Your task to perform on an android device: Go to calendar. Show me events next week Image 0: 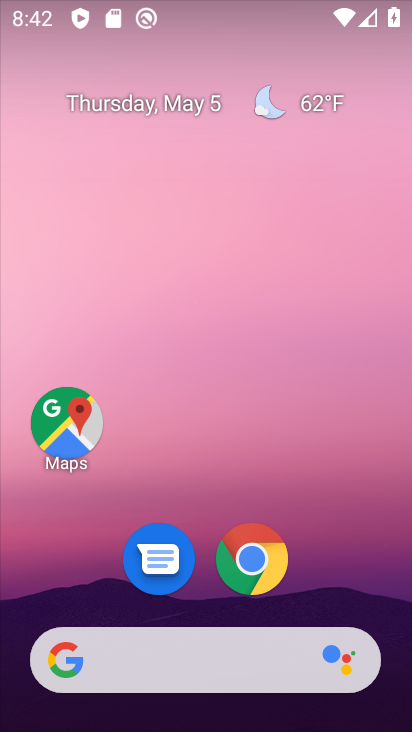
Step 0: drag from (240, 465) to (326, 2)
Your task to perform on an android device: Go to calendar. Show me events next week Image 1: 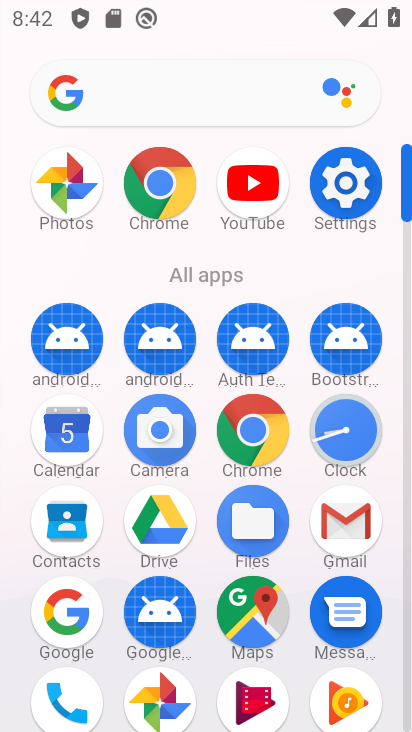
Step 1: click (69, 431)
Your task to perform on an android device: Go to calendar. Show me events next week Image 2: 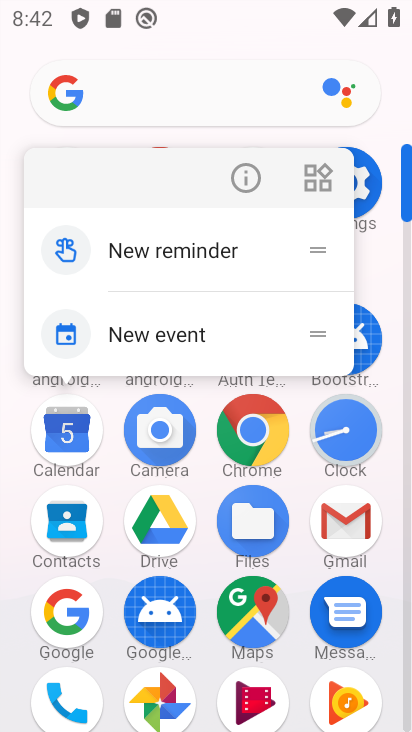
Step 2: click (44, 433)
Your task to perform on an android device: Go to calendar. Show me events next week Image 3: 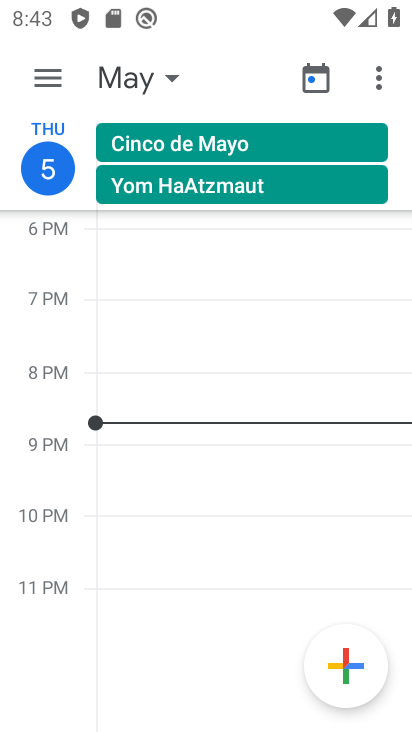
Step 3: click (153, 76)
Your task to perform on an android device: Go to calendar. Show me events next week Image 4: 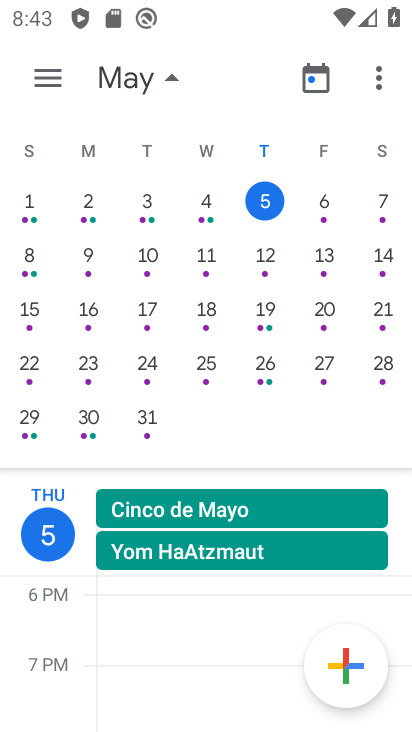
Step 4: click (102, 251)
Your task to perform on an android device: Go to calendar. Show me events next week Image 5: 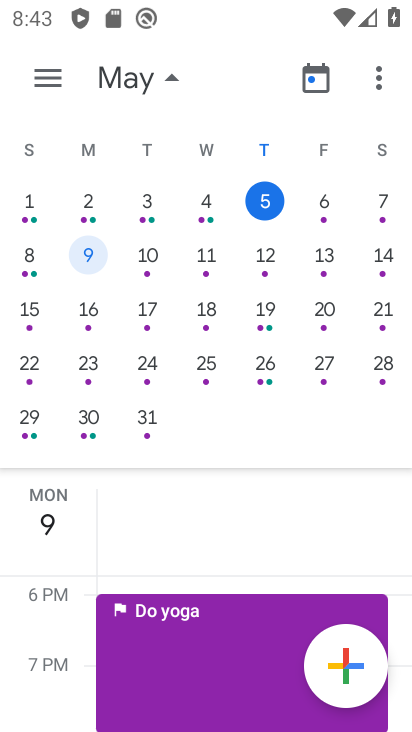
Step 5: drag from (152, 644) to (264, 167)
Your task to perform on an android device: Go to calendar. Show me events next week Image 6: 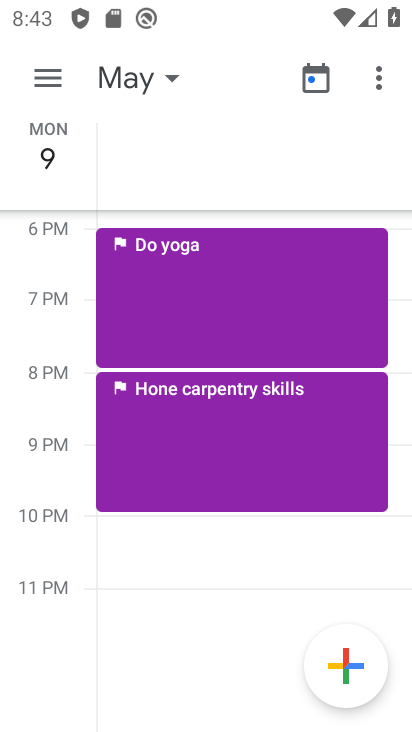
Step 6: click (54, 73)
Your task to perform on an android device: Go to calendar. Show me events next week Image 7: 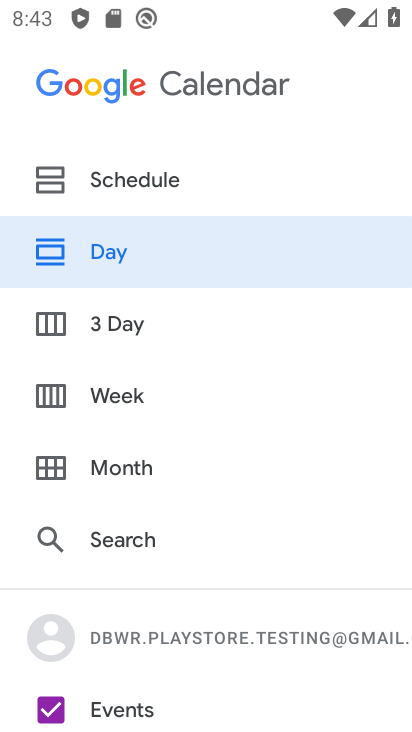
Step 7: click (117, 185)
Your task to perform on an android device: Go to calendar. Show me events next week Image 8: 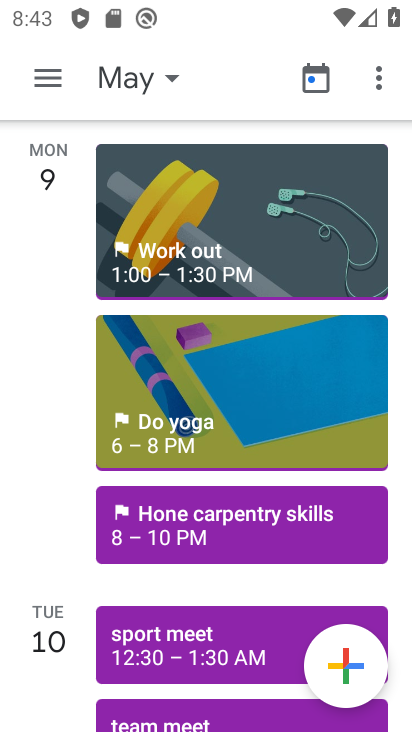
Step 8: click (171, 643)
Your task to perform on an android device: Go to calendar. Show me events next week Image 9: 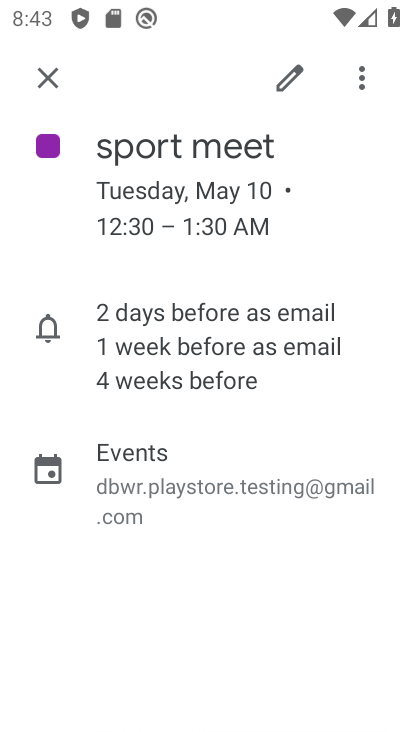
Step 9: task complete